Your task to perform on an android device: open chrome and create a bookmark for the current page Image 0: 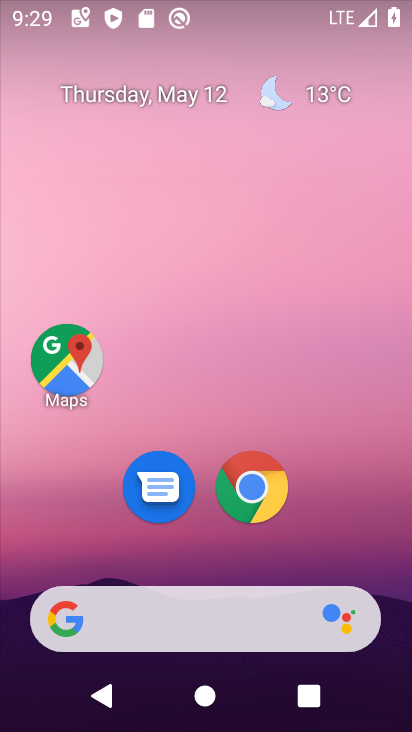
Step 0: click (260, 491)
Your task to perform on an android device: open chrome and create a bookmark for the current page Image 1: 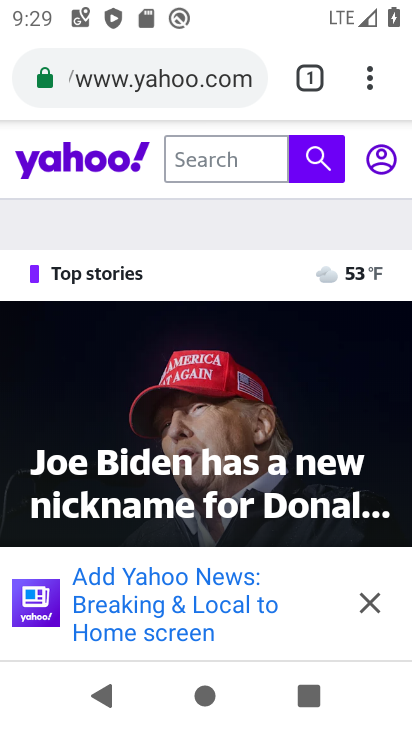
Step 1: click (369, 77)
Your task to perform on an android device: open chrome and create a bookmark for the current page Image 2: 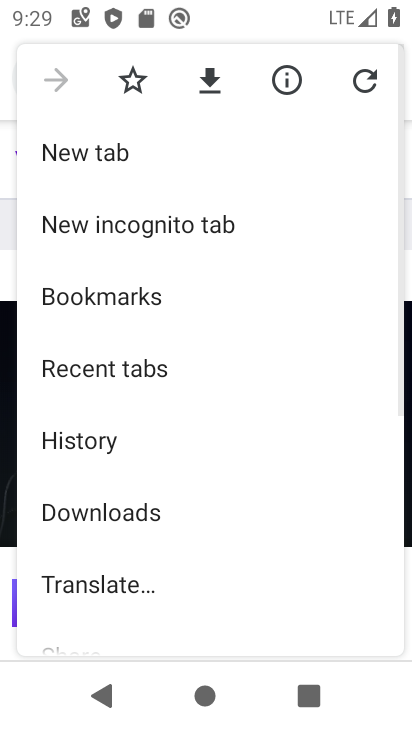
Step 2: click (126, 84)
Your task to perform on an android device: open chrome and create a bookmark for the current page Image 3: 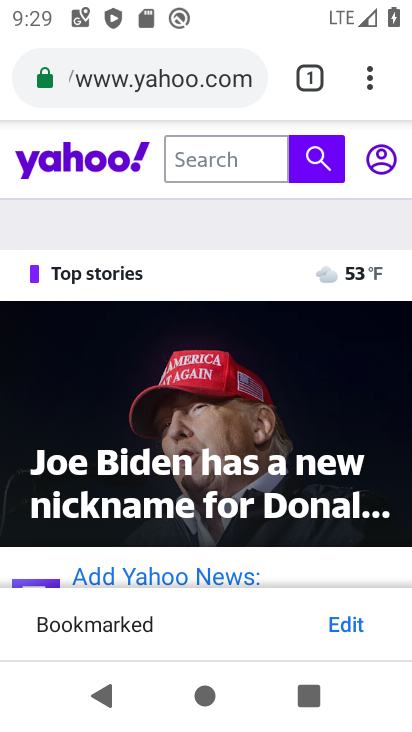
Step 3: task complete